Your task to perform on an android device: open chrome and create a bookmark for the current page Image 0: 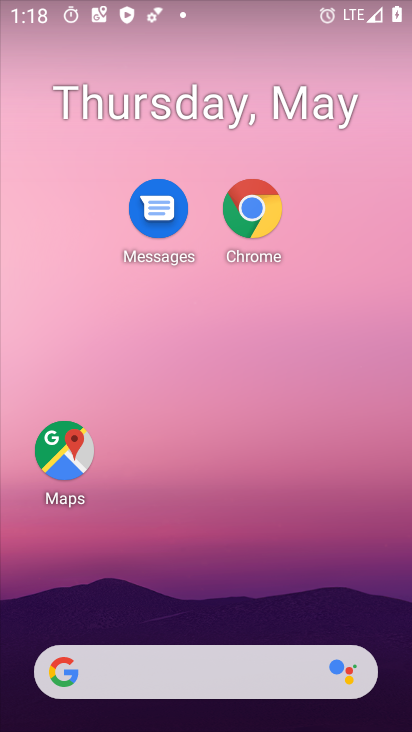
Step 0: click (244, 239)
Your task to perform on an android device: open chrome and create a bookmark for the current page Image 1: 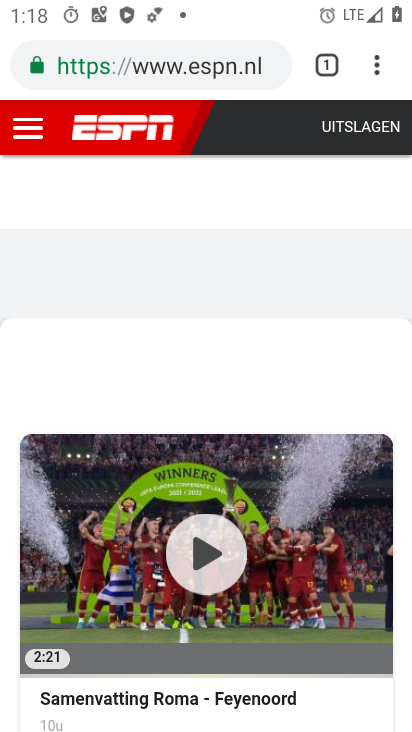
Step 1: click (372, 74)
Your task to perform on an android device: open chrome and create a bookmark for the current page Image 2: 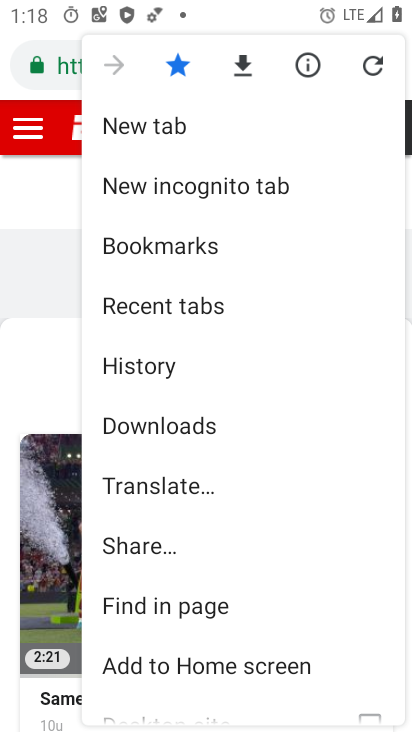
Step 2: task complete